Your task to perform on an android device: open a bookmark in the chrome app Image 0: 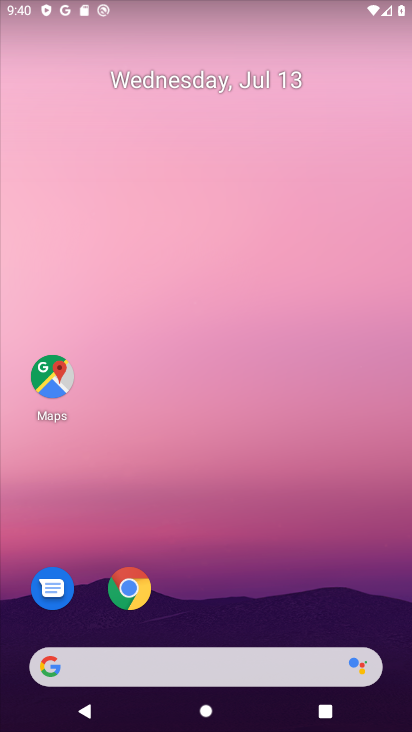
Step 0: click (129, 588)
Your task to perform on an android device: open a bookmark in the chrome app Image 1: 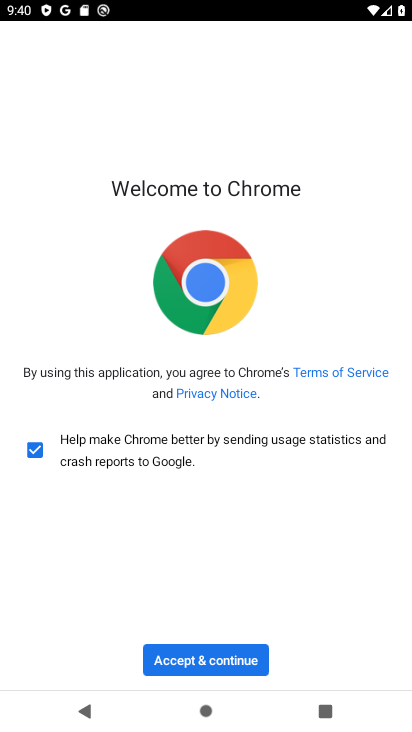
Step 1: click (199, 668)
Your task to perform on an android device: open a bookmark in the chrome app Image 2: 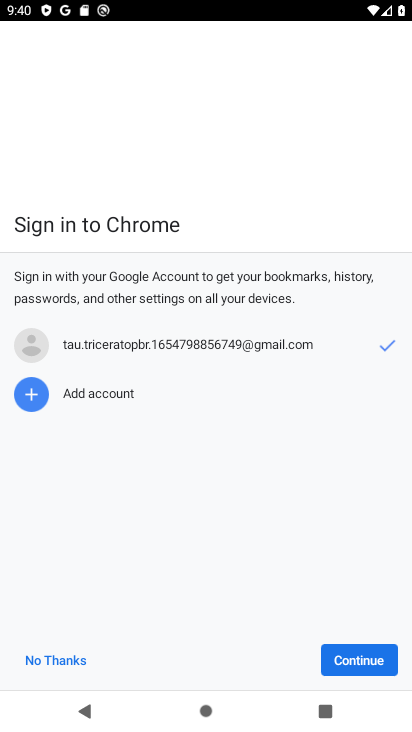
Step 2: click (345, 658)
Your task to perform on an android device: open a bookmark in the chrome app Image 3: 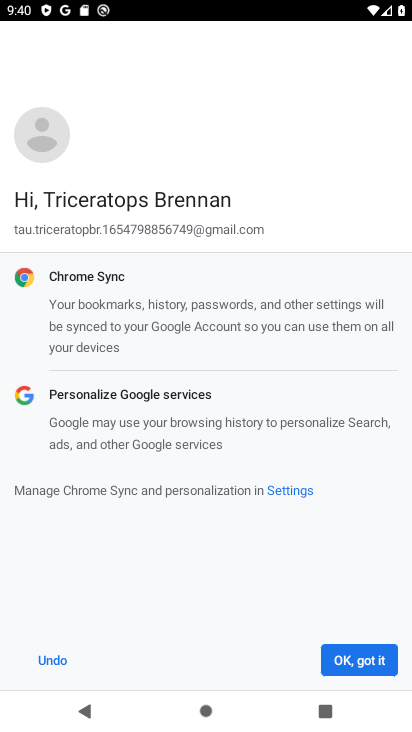
Step 3: click (375, 658)
Your task to perform on an android device: open a bookmark in the chrome app Image 4: 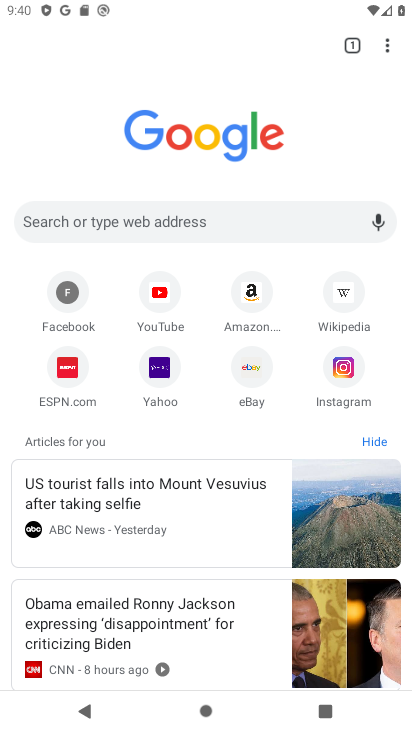
Step 4: click (386, 46)
Your task to perform on an android device: open a bookmark in the chrome app Image 5: 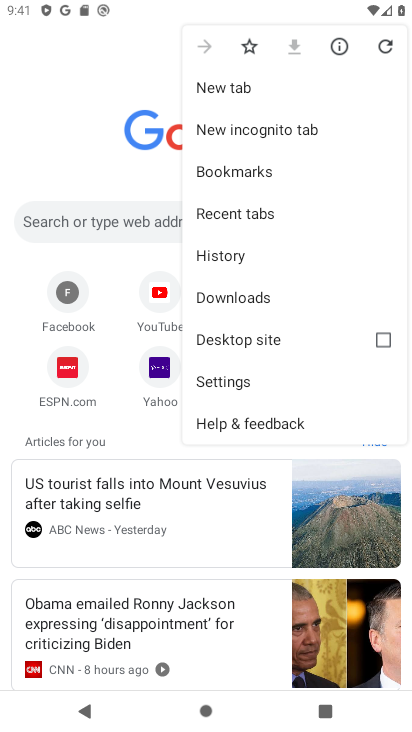
Step 5: click (249, 170)
Your task to perform on an android device: open a bookmark in the chrome app Image 6: 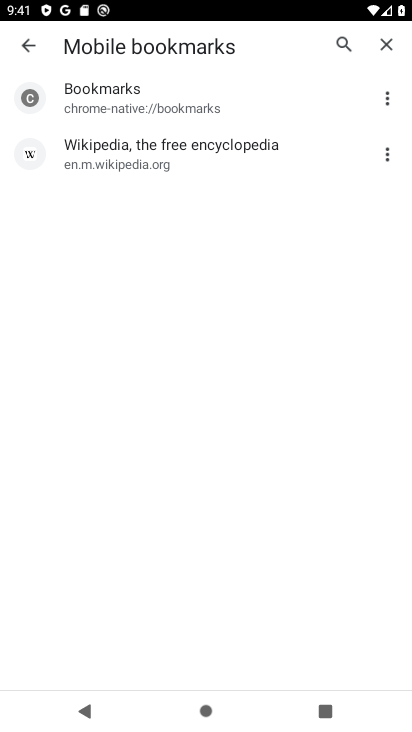
Step 6: task complete